Your task to perform on an android device: turn vacation reply on in the gmail app Image 0: 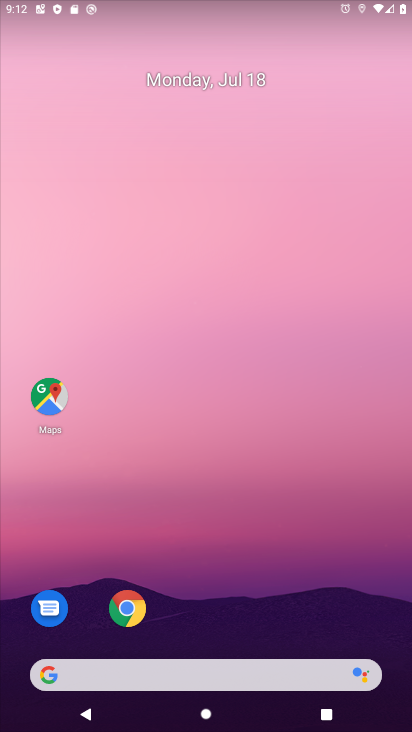
Step 0: drag from (21, 686) to (197, 60)
Your task to perform on an android device: turn vacation reply on in the gmail app Image 1: 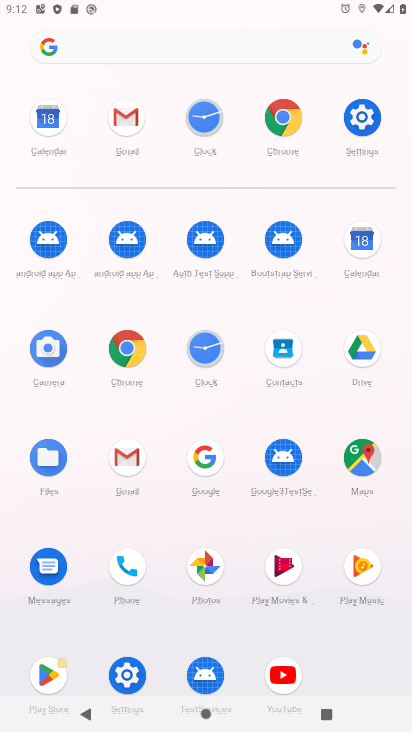
Step 1: click (126, 461)
Your task to perform on an android device: turn vacation reply on in the gmail app Image 2: 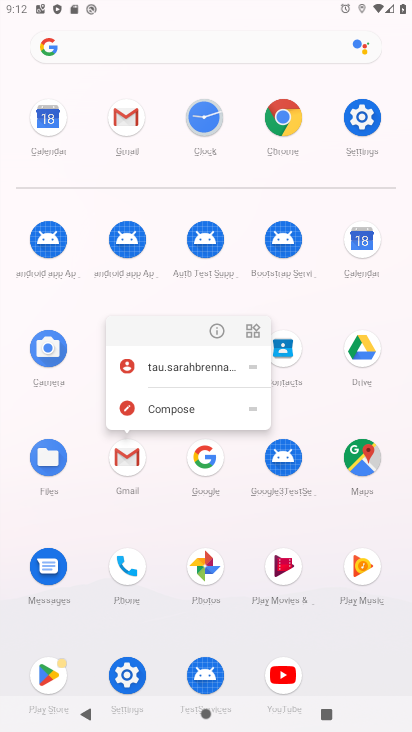
Step 2: click (117, 470)
Your task to perform on an android device: turn vacation reply on in the gmail app Image 3: 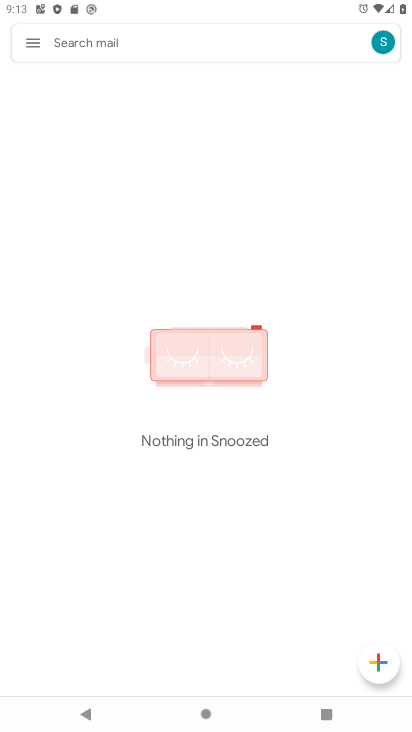
Step 3: click (30, 47)
Your task to perform on an android device: turn vacation reply on in the gmail app Image 4: 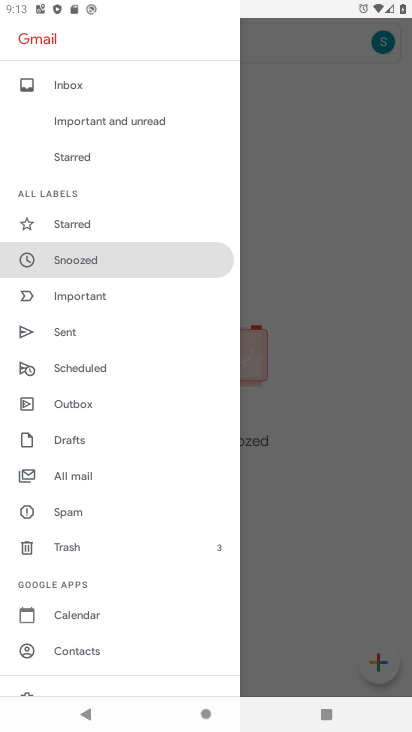
Step 4: drag from (141, 630) to (179, 271)
Your task to perform on an android device: turn vacation reply on in the gmail app Image 5: 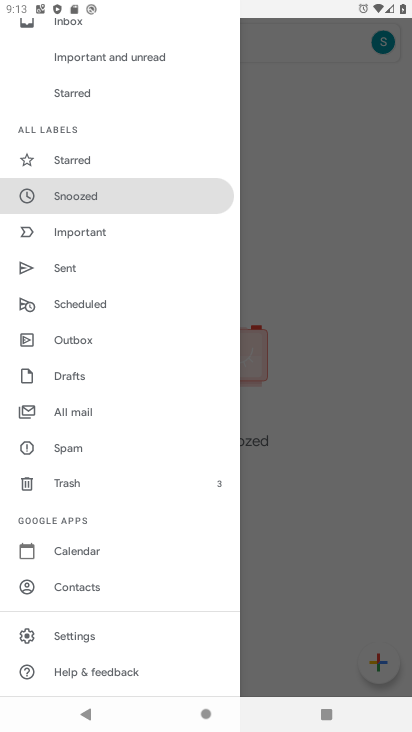
Step 5: click (64, 629)
Your task to perform on an android device: turn vacation reply on in the gmail app Image 6: 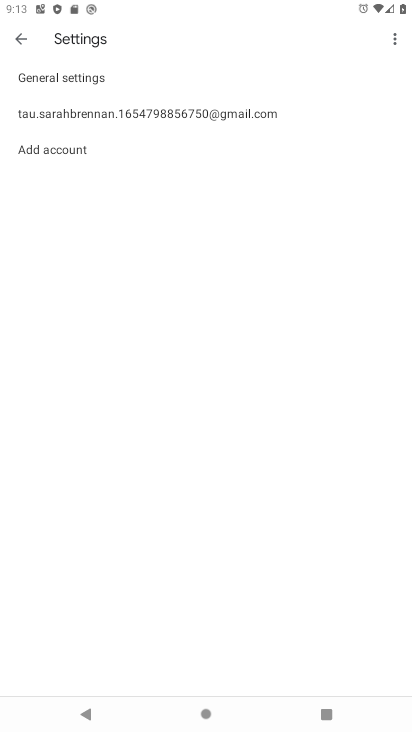
Step 6: click (80, 102)
Your task to perform on an android device: turn vacation reply on in the gmail app Image 7: 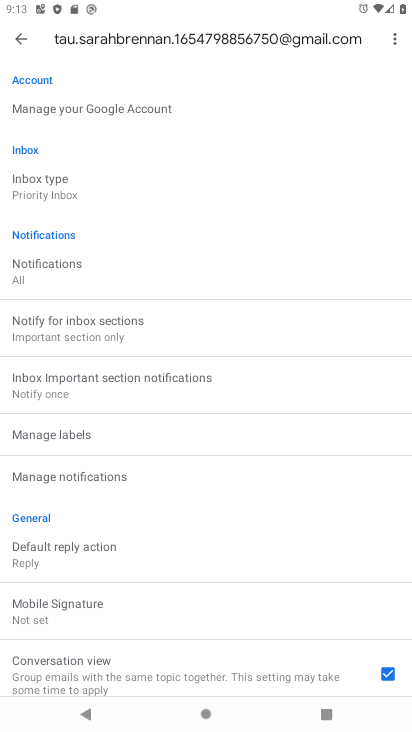
Step 7: drag from (189, 604) to (263, 232)
Your task to perform on an android device: turn vacation reply on in the gmail app Image 8: 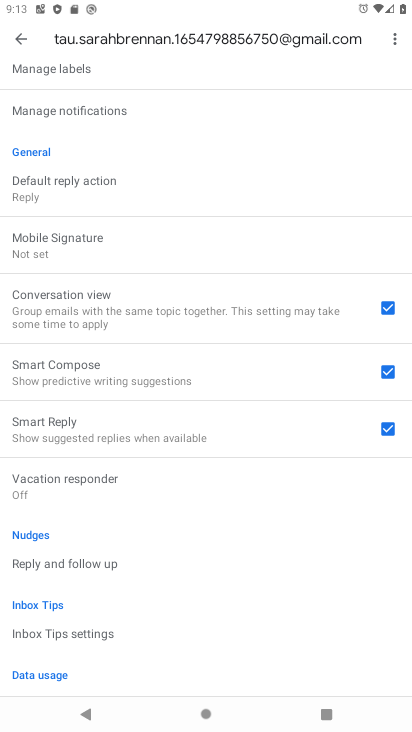
Step 8: drag from (174, 630) to (216, 327)
Your task to perform on an android device: turn vacation reply on in the gmail app Image 9: 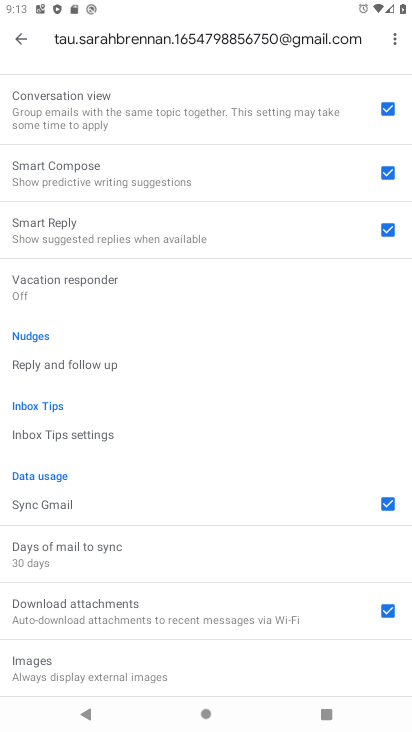
Step 9: drag from (218, 657) to (284, 281)
Your task to perform on an android device: turn vacation reply on in the gmail app Image 10: 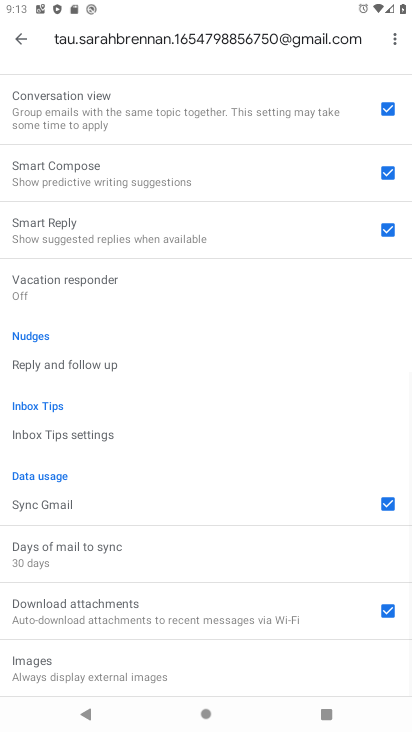
Step 10: drag from (249, 331) to (174, 719)
Your task to perform on an android device: turn vacation reply on in the gmail app Image 11: 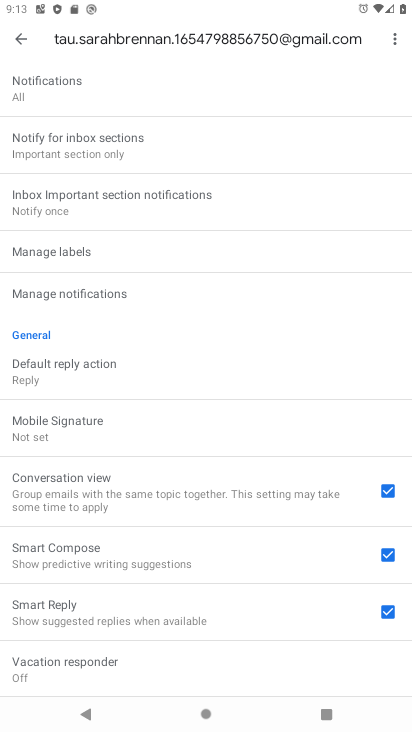
Step 11: click (56, 318)
Your task to perform on an android device: turn vacation reply on in the gmail app Image 12: 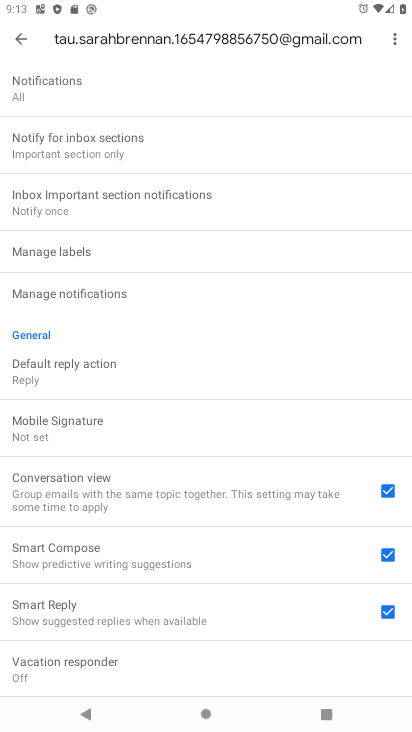
Step 12: click (57, 382)
Your task to perform on an android device: turn vacation reply on in the gmail app Image 13: 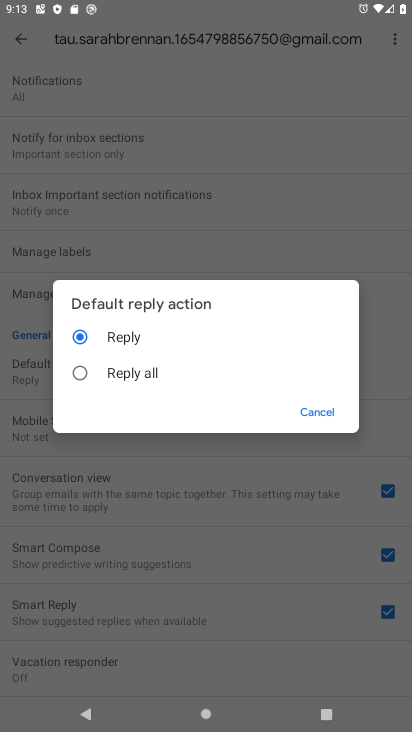
Step 13: click (267, 470)
Your task to perform on an android device: turn vacation reply on in the gmail app Image 14: 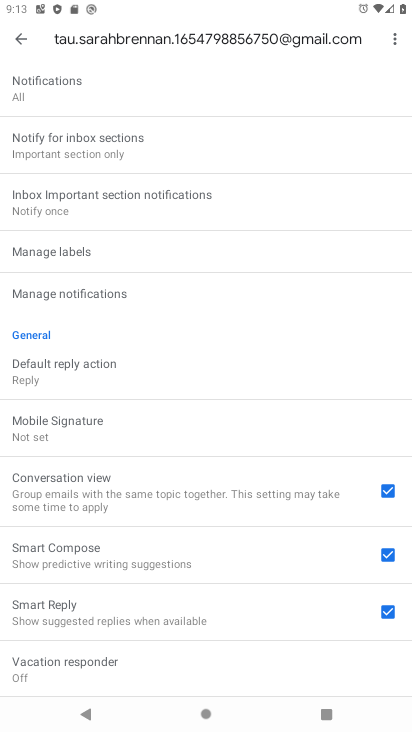
Step 14: task complete